Your task to perform on an android device: Go to calendar. Show me events next week Image 0: 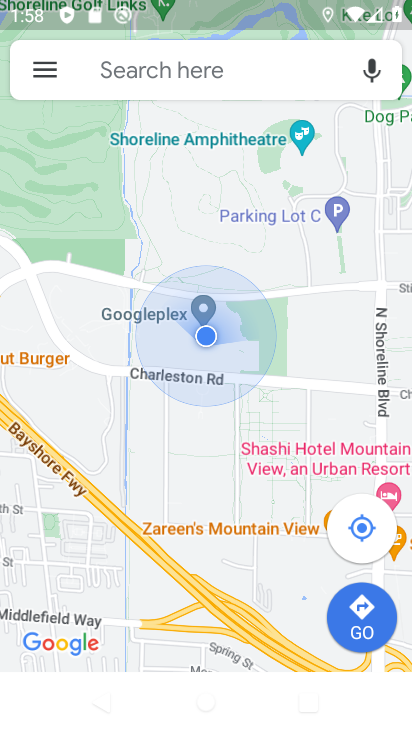
Step 0: press home button
Your task to perform on an android device: Go to calendar. Show me events next week Image 1: 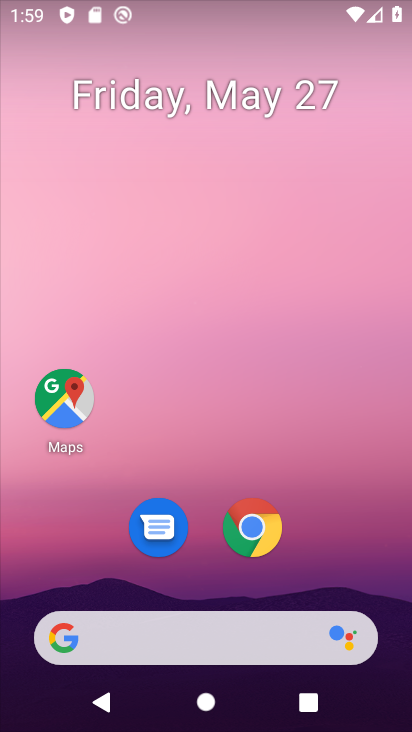
Step 1: drag from (181, 320) to (197, 228)
Your task to perform on an android device: Go to calendar. Show me events next week Image 2: 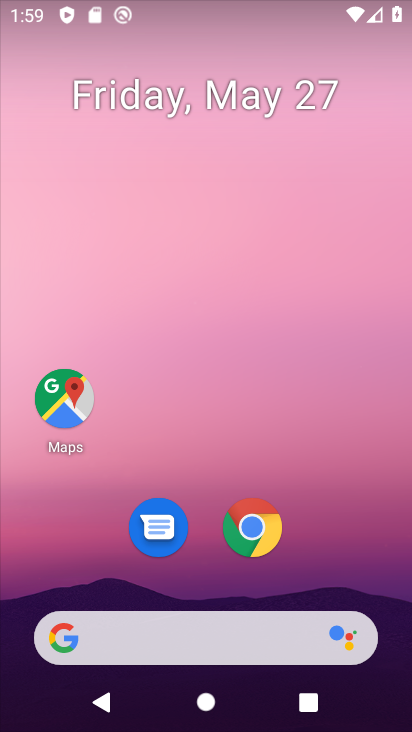
Step 2: drag from (182, 595) to (242, 192)
Your task to perform on an android device: Go to calendar. Show me events next week Image 3: 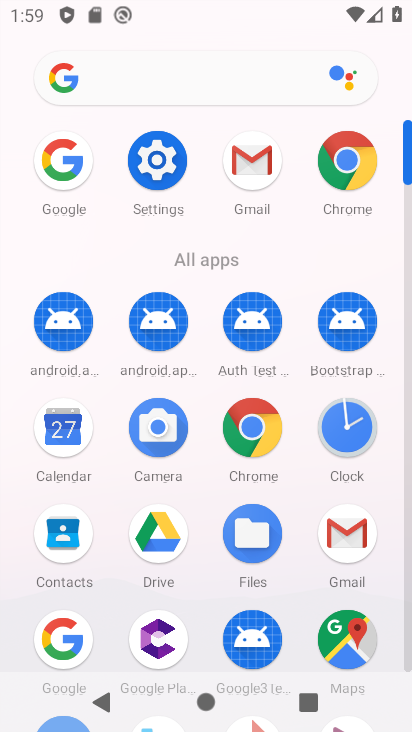
Step 3: click (51, 447)
Your task to perform on an android device: Go to calendar. Show me events next week Image 4: 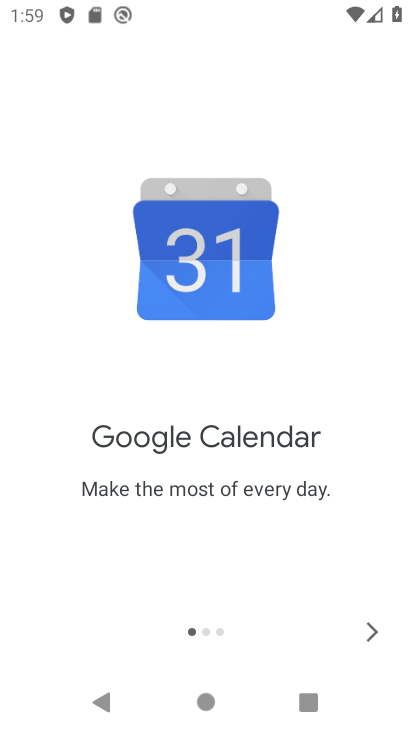
Step 4: click (375, 631)
Your task to perform on an android device: Go to calendar. Show me events next week Image 5: 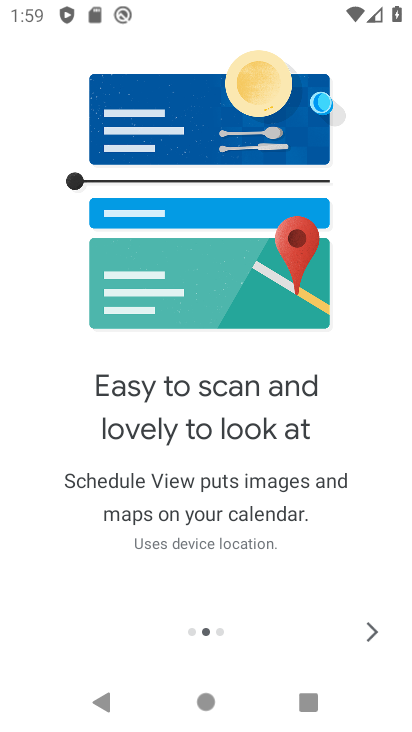
Step 5: click (375, 631)
Your task to perform on an android device: Go to calendar. Show me events next week Image 6: 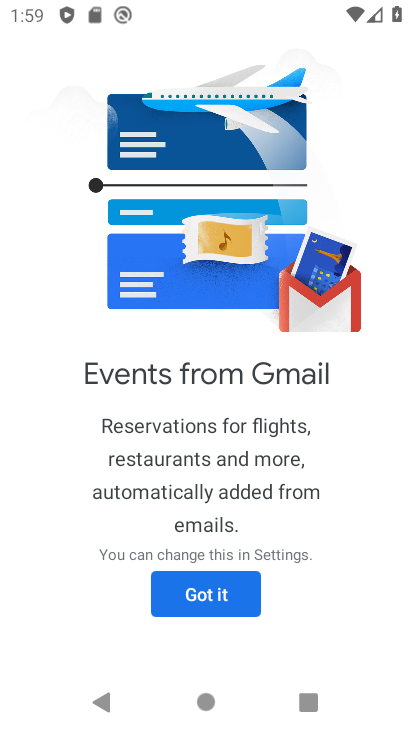
Step 6: click (208, 603)
Your task to perform on an android device: Go to calendar. Show me events next week Image 7: 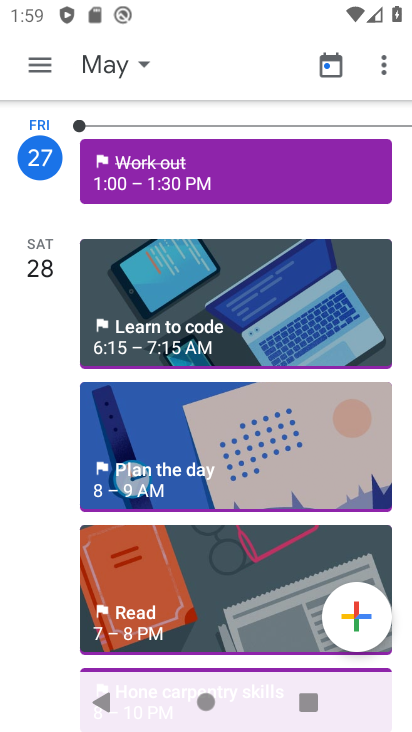
Step 7: click (130, 67)
Your task to perform on an android device: Go to calendar. Show me events next week Image 8: 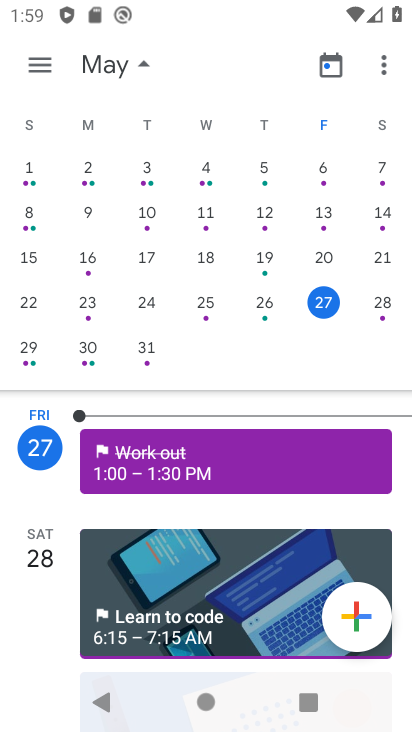
Step 8: click (90, 348)
Your task to perform on an android device: Go to calendar. Show me events next week Image 9: 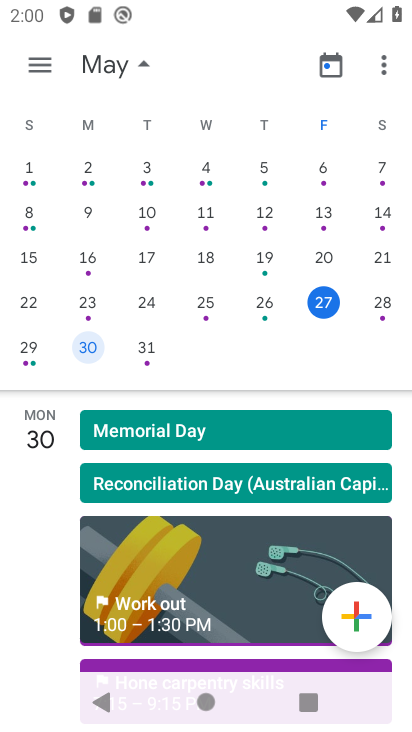
Step 9: task complete